Your task to perform on an android device: Open the calendar and show me this week's events Image 0: 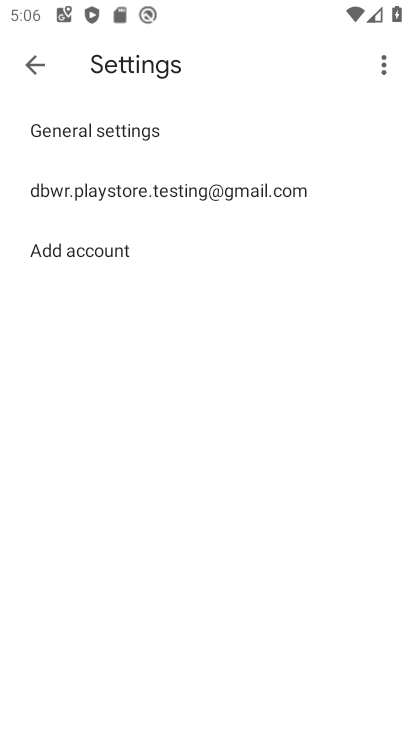
Step 0: press home button
Your task to perform on an android device: Open the calendar and show me this week's events Image 1: 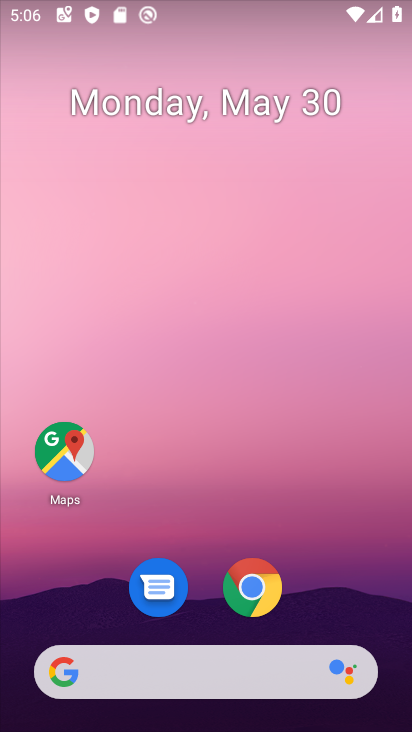
Step 1: drag from (347, 560) to (281, 128)
Your task to perform on an android device: Open the calendar and show me this week's events Image 2: 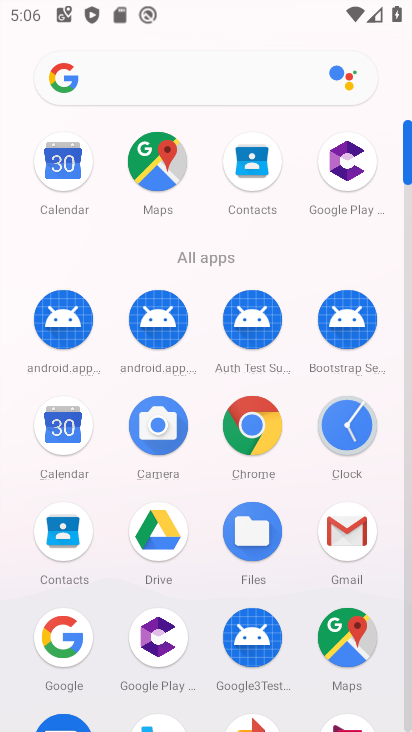
Step 2: click (67, 162)
Your task to perform on an android device: Open the calendar and show me this week's events Image 3: 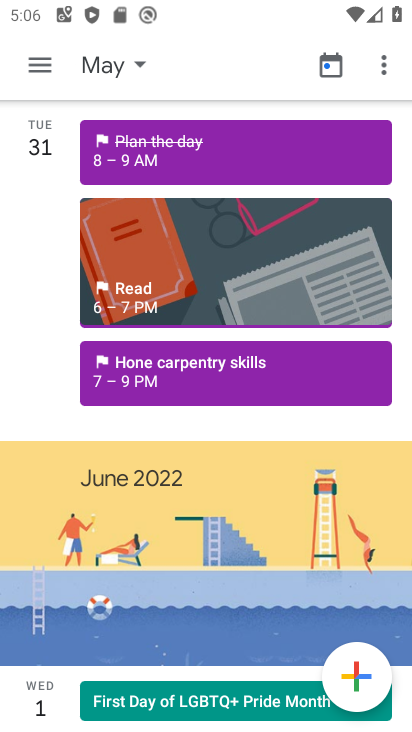
Step 3: click (138, 59)
Your task to perform on an android device: Open the calendar and show me this week's events Image 4: 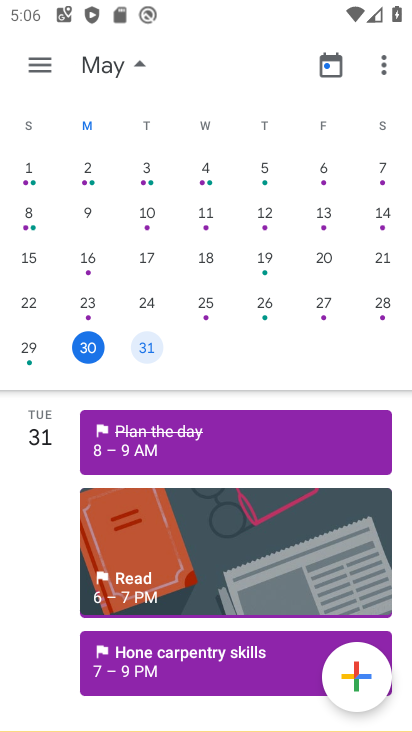
Step 4: click (338, 54)
Your task to perform on an android device: Open the calendar and show me this week's events Image 5: 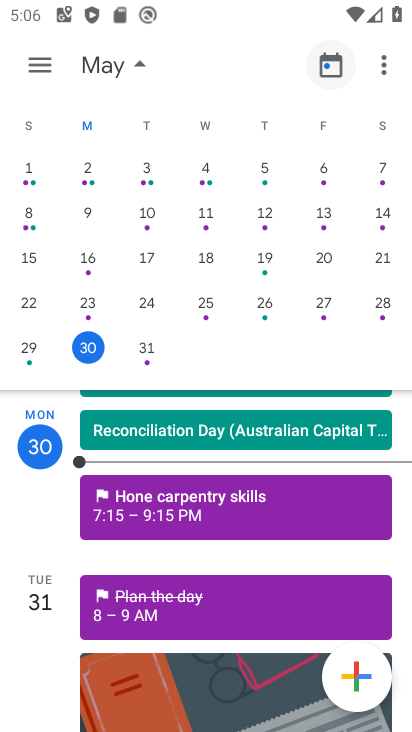
Step 5: click (336, 68)
Your task to perform on an android device: Open the calendar and show me this week's events Image 6: 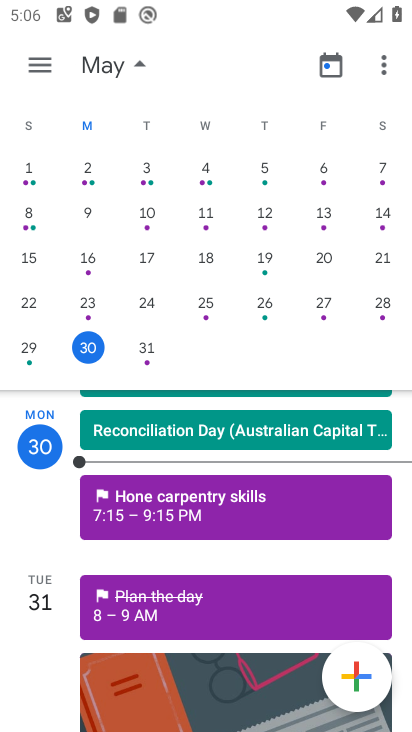
Step 6: click (41, 60)
Your task to perform on an android device: Open the calendar and show me this week's events Image 7: 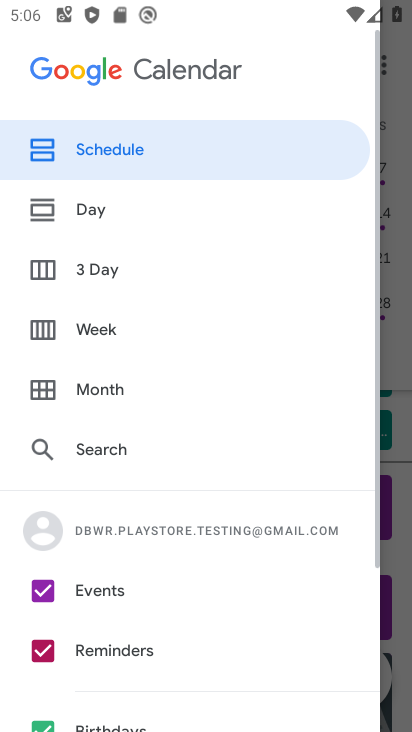
Step 7: click (94, 135)
Your task to perform on an android device: Open the calendar and show me this week's events Image 8: 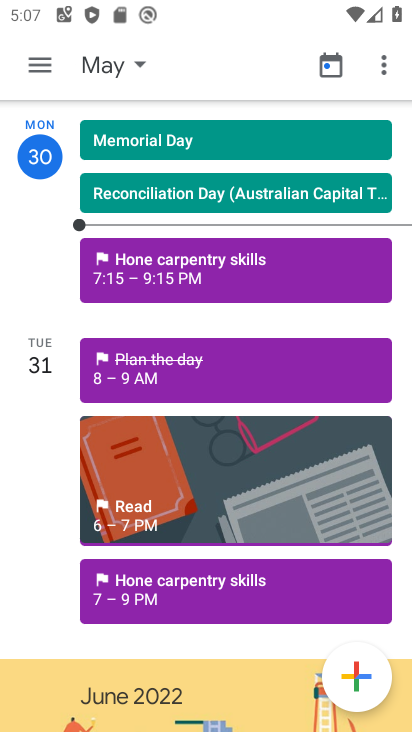
Step 8: task complete